Your task to perform on an android device: set default search engine in the chrome app Image 0: 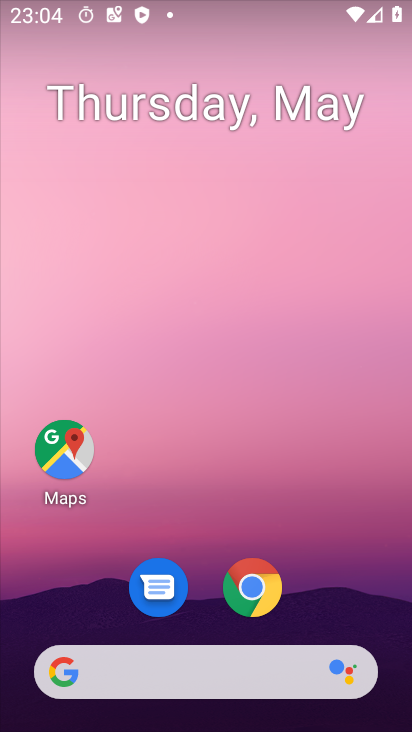
Step 0: click (255, 588)
Your task to perform on an android device: set default search engine in the chrome app Image 1: 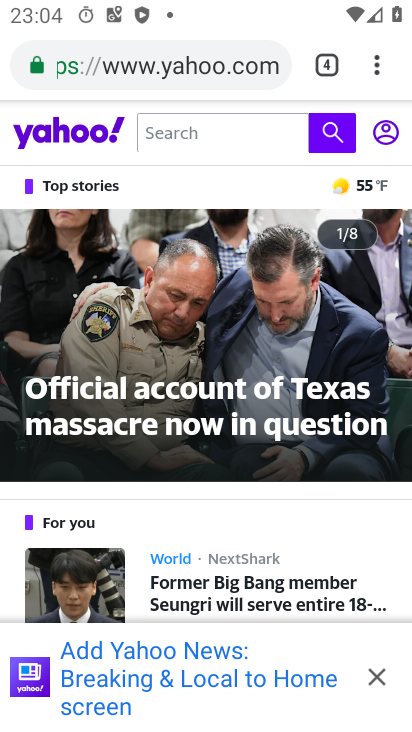
Step 1: click (374, 65)
Your task to perform on an android device: set default search engine in the chrome app Image 2: 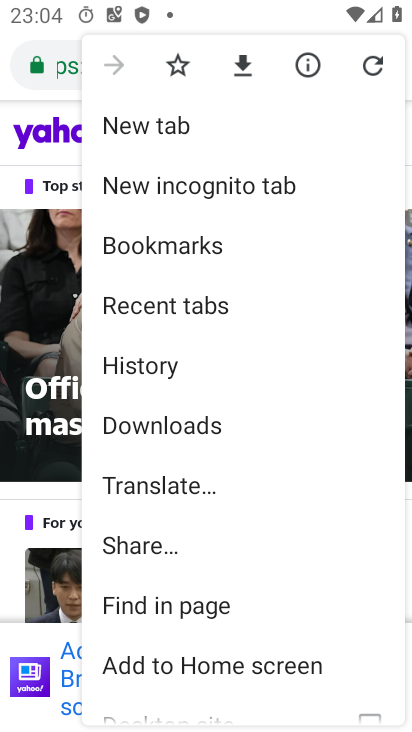
Step 2: drag from (311, 553) to (317, 152)
Your task to perform on an android device: set default search engine in the chrome app Image 3: 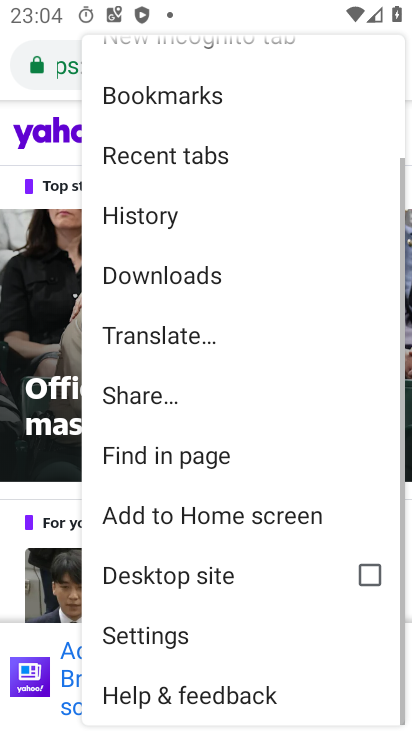
Step 3: click (175, 632)
Your task to perform on an android device: set default search engine in the chrome app Image 4: 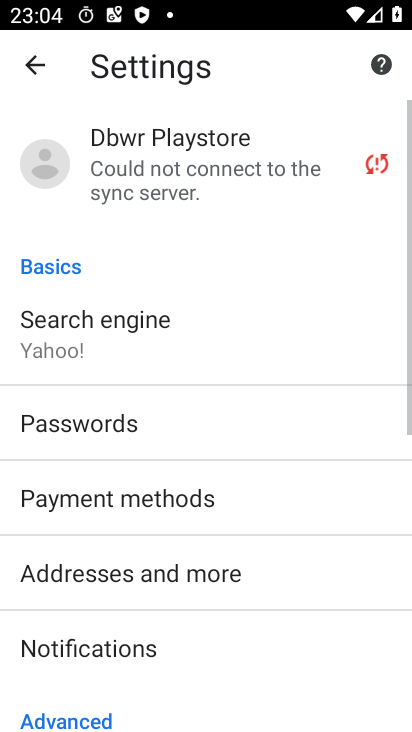
Step 4: click (52, 357)
Your task to perform on an android device: set default search engine in the chrome app Image 5: 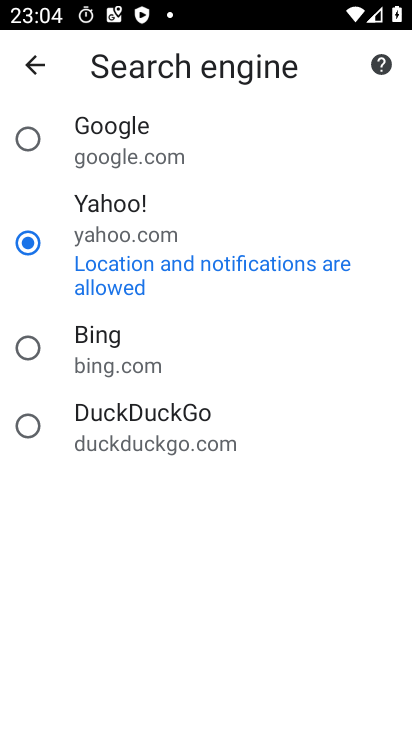
Step 5: click (52, 357)
Your task to perform on an android device: set default search engine in the chrome app Image 6: 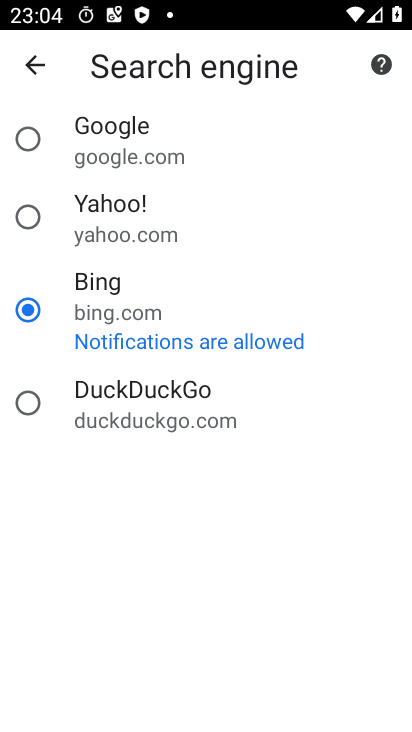
Step 6: task complete